Your task to perform on an android device: Go to Reddit.com Image 0: 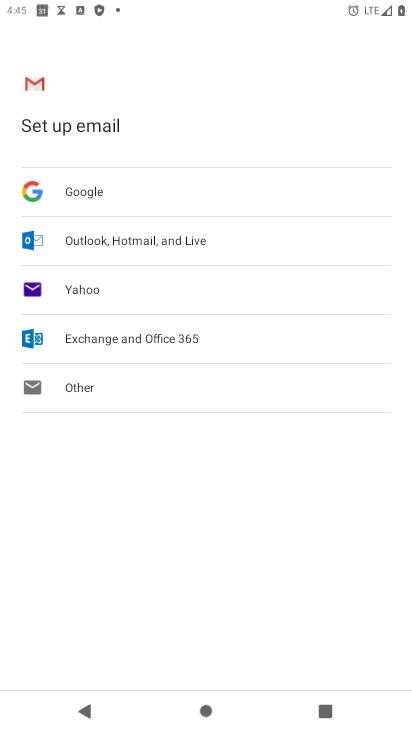
Step 0: press home button
Your task to perform on an android device: Go to Reddit.com Image 1: 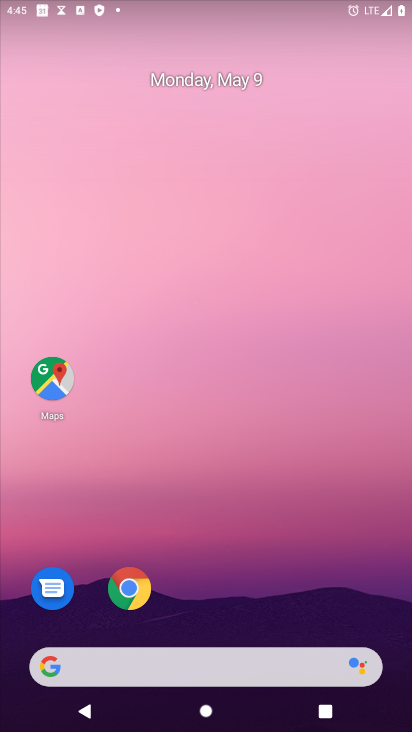
Step 1: click (134, 589)
Your task to perform on an android device: Go to Reddit.com Image 2: 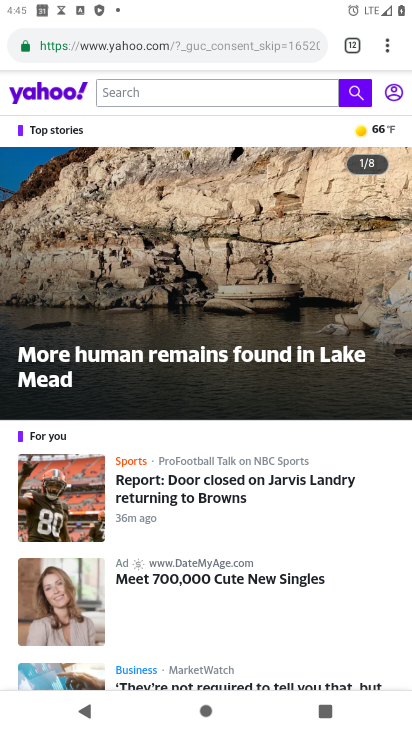
Step 2: click (341, 41)
Your task to perform on an android device: Go to Reddit.com Image 3: 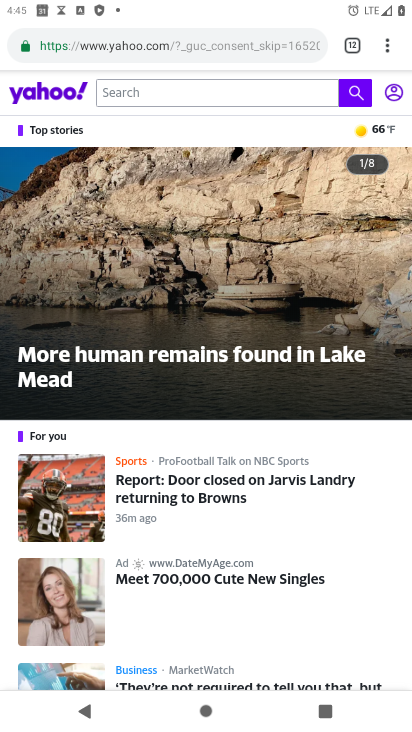
Step 3: click (119, 42)
Your task to perform on an android device: Go to Reddit.com Image 4: 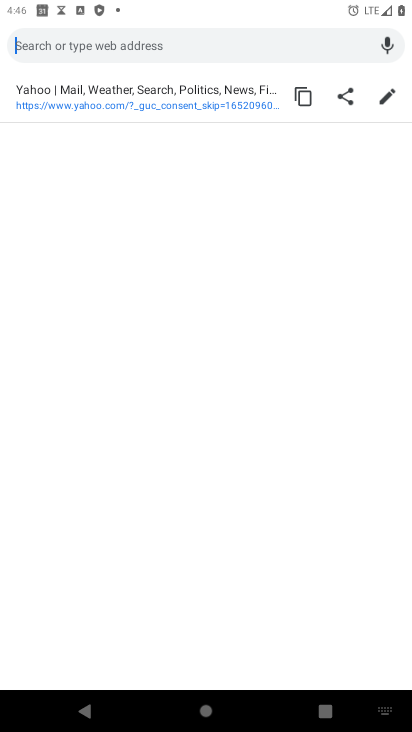
Step 4: type "reddit.com"
Your task to perform on an android device: Go to Reddit.com Image 5: 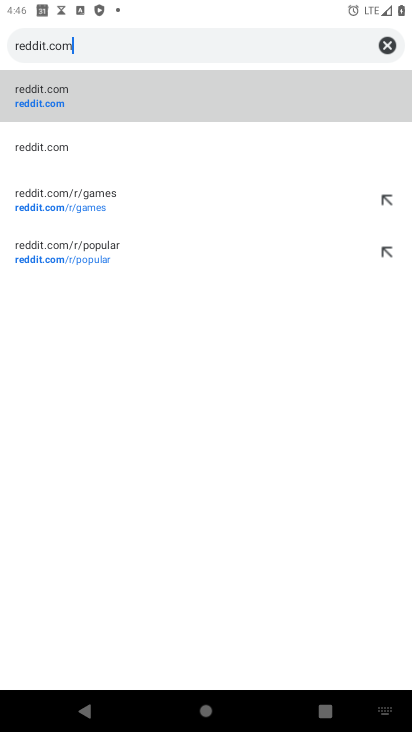
Step 5: click (96, 92)
Your task to perform on an android device: Go to Reddit.com Image 6: 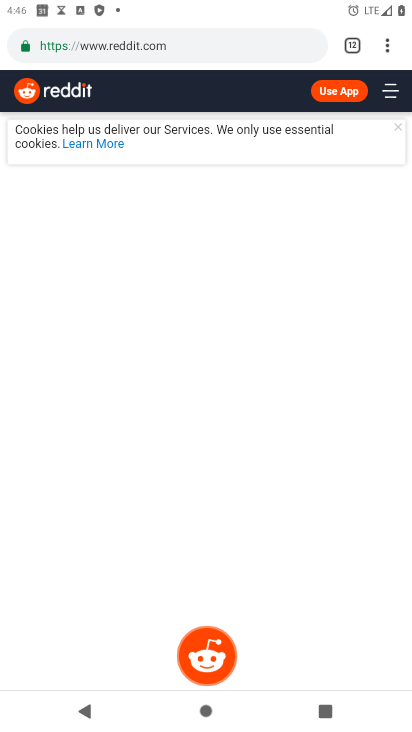
Step 6: task complete